Your task to perform on an android device: turn off picture-in-picture Image 0: 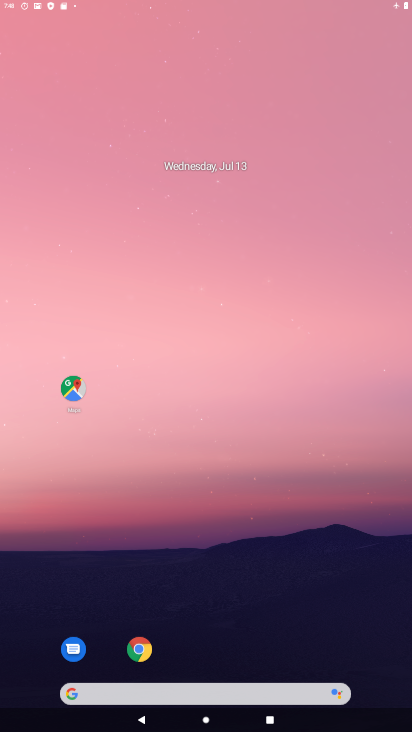
Step 0: click (265, 34)
Your task to perform on an android device: turn off picture-in-picture Image 1: 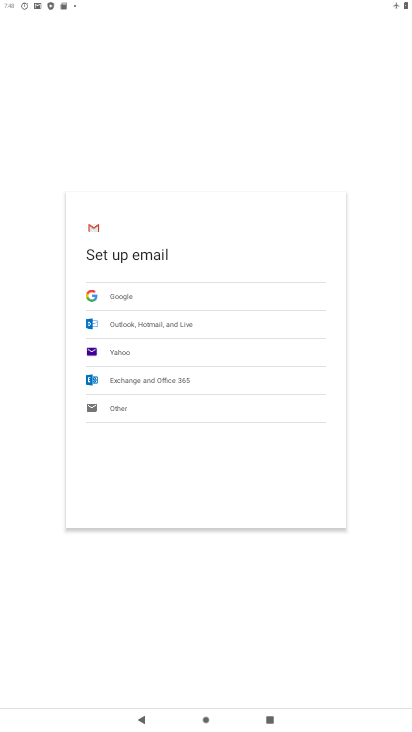
Step 1: press home button
Your task to perform on an android device: turn off picture-in-picture Image 2: 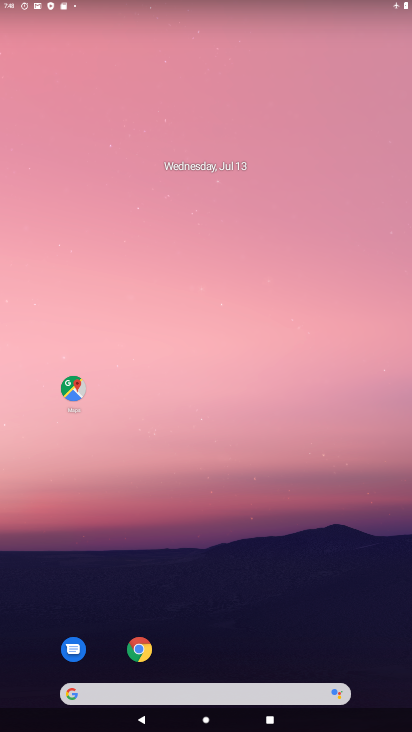
Step 2: click (148, 649)
Your task to perform on an android device: turn off picture-in-picture Image 3: 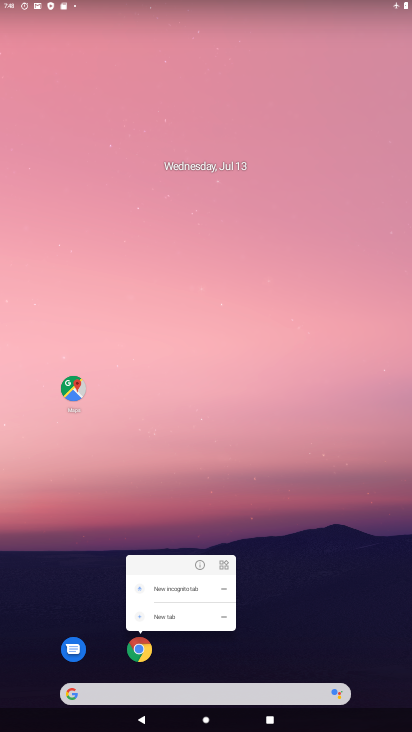
Step 3: click (198, 563)
Your task to perform on an android device: turn off picture-in-picture Image 4: 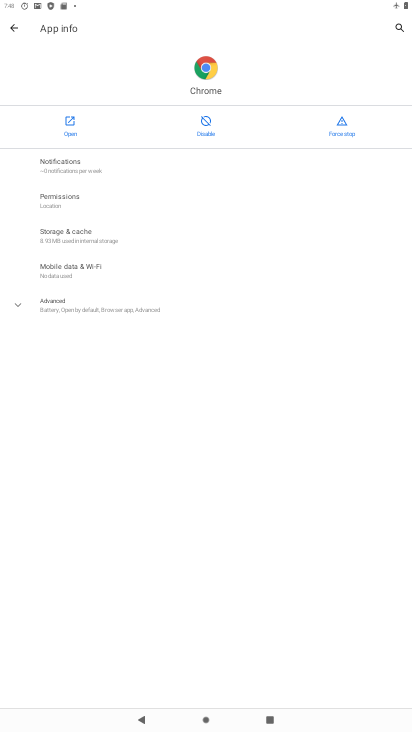
Step 4: click (76, 304)
Your task to perform on an android device: turn off picture-in-picture Image 5: 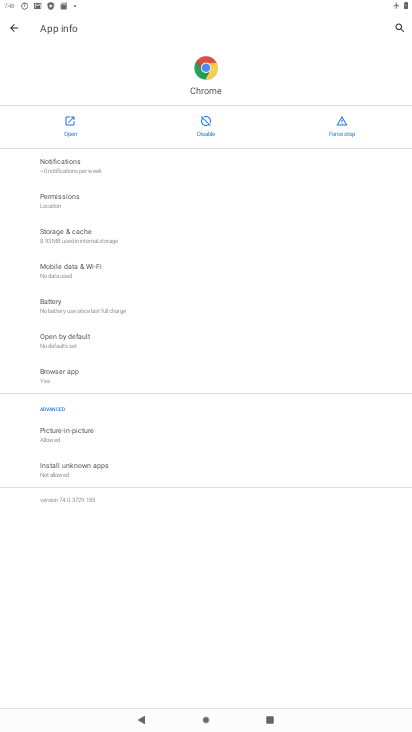
Step 5: click (87, 434)
Your task to perform on an android device: turn off picture-in-picture Image 6: 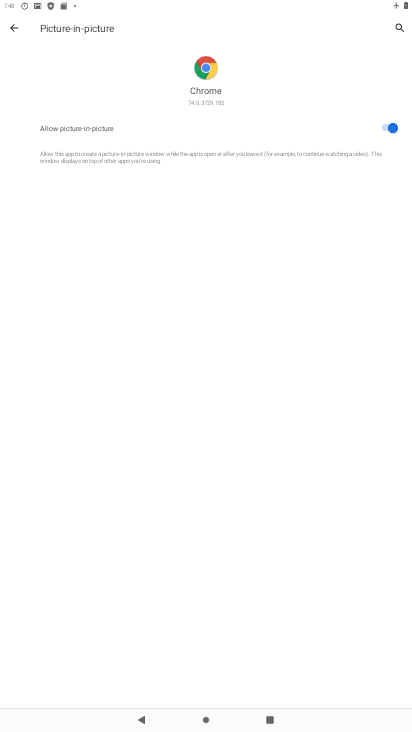
Step 6: click (377, 127)
Your task to perform on an android device: turn off picture-in-picture Image 7: 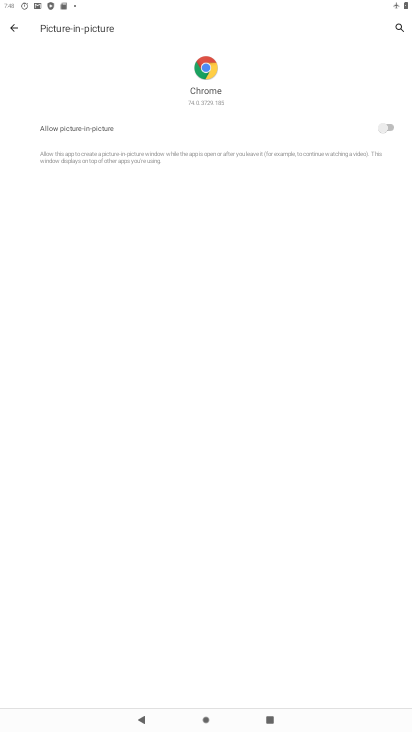
Step 7: task complete